Your task to perform on an android device: toggle wifi Image 0: 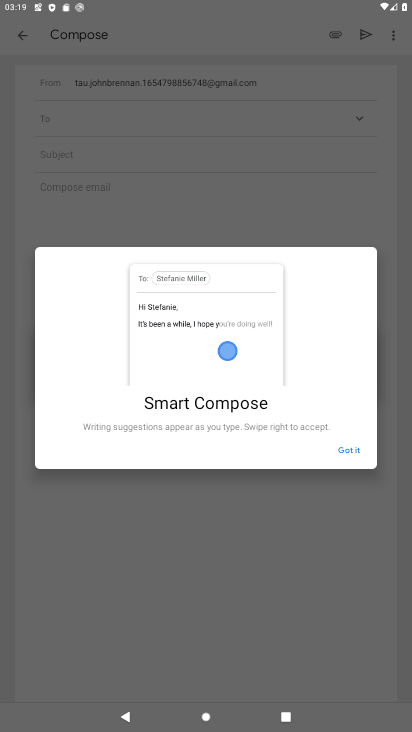
Step 0: press home button
Your task to perform on an android device: toggle wifi Image 1: 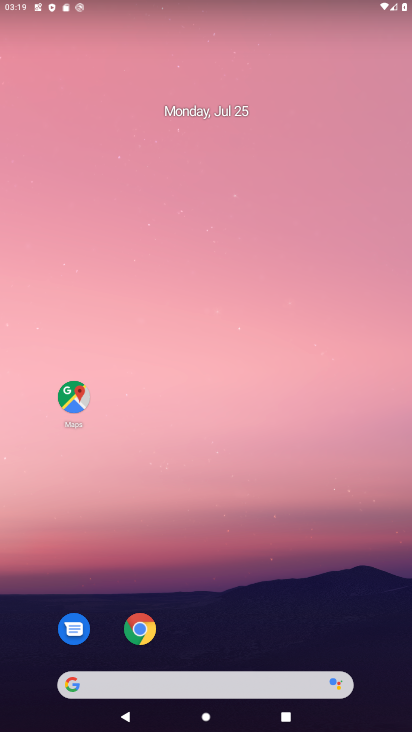
Step 1: drag from (260, 647) to (224, 8)
Your task to perform on an android device: toggle wifi Image 2: 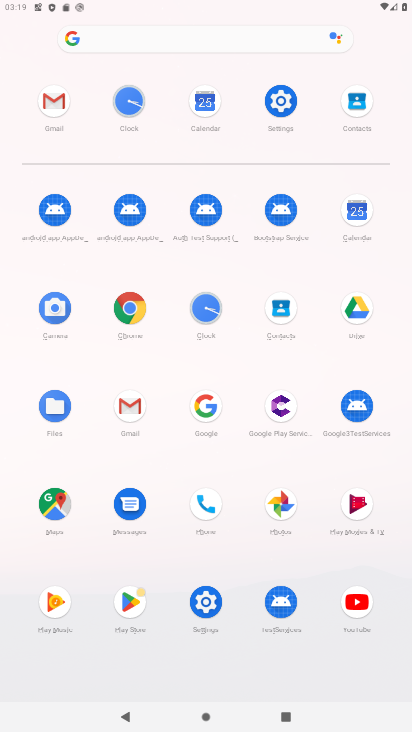
Step 2: click (276, 103)
Your task to perform on an android device: toggle wifi Image 3: 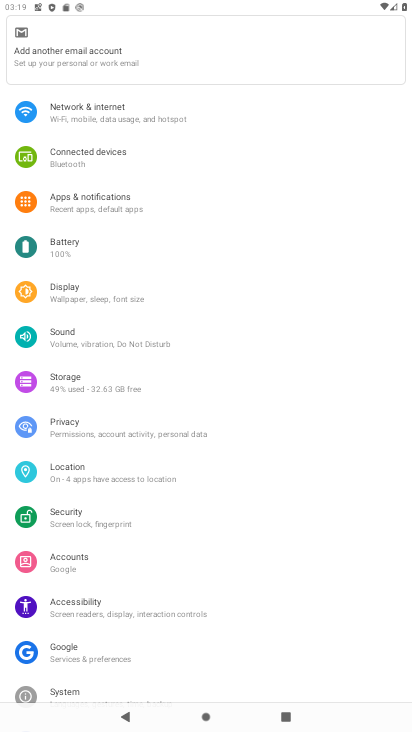
Step 3: click (104, 124)
Your task to perform on an android device: toggle wifi Image 4: 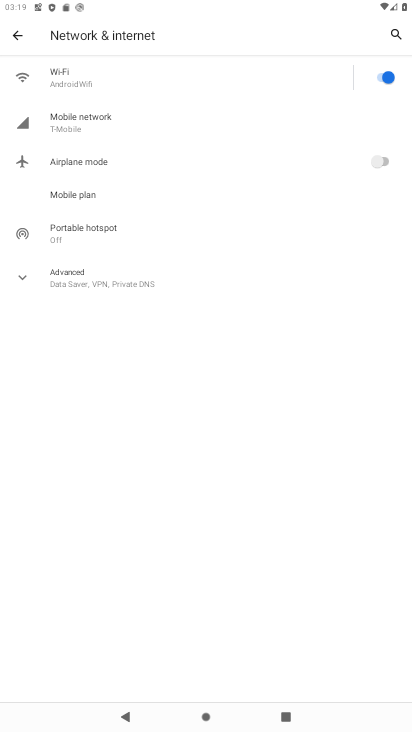
Step 4: click (375, 80)
Your task to perform on an android device: toggle wifi Image 5: 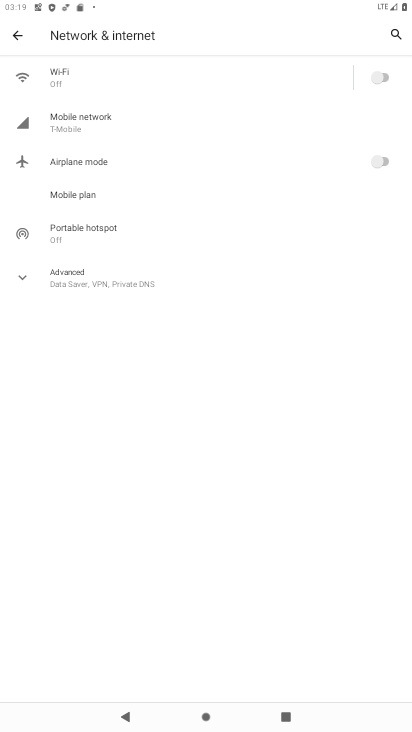
Step 5: task complete